Your task to perform on an android device: turn on priority inbox in the gmail app Image 0: 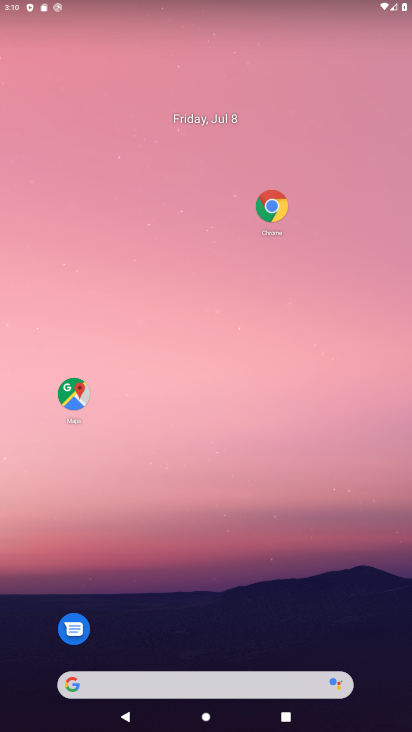
Step 0: drag from (225, 617) to (150, 129)
Your task to perform on an android device: turn on priority inbox in the gmail app Image 1: 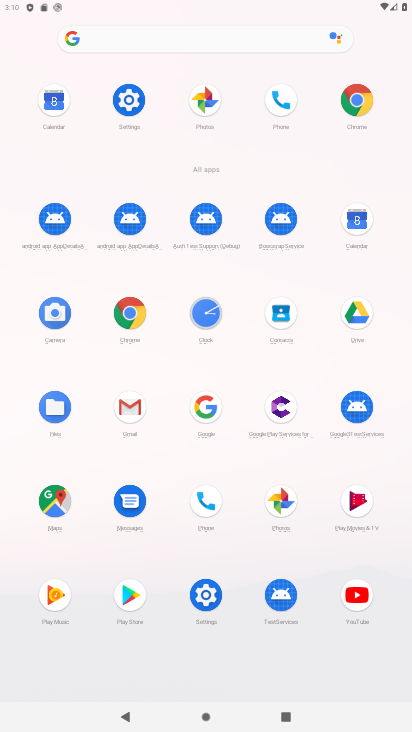
Step 1: click (129, 409)
Your task to perform on an android device: turn on priority inbox in the gmail app Image 2: 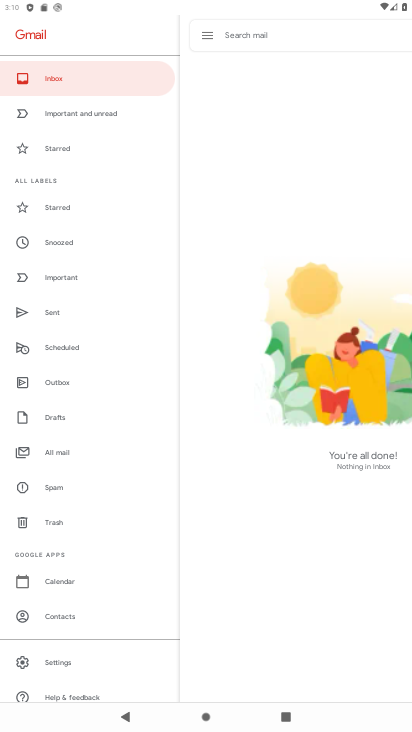
Step 2: drag from (126, 603) to (136, 398)
Your task to perform on an android device: turn on priority inbox in the gmail app Image 3: 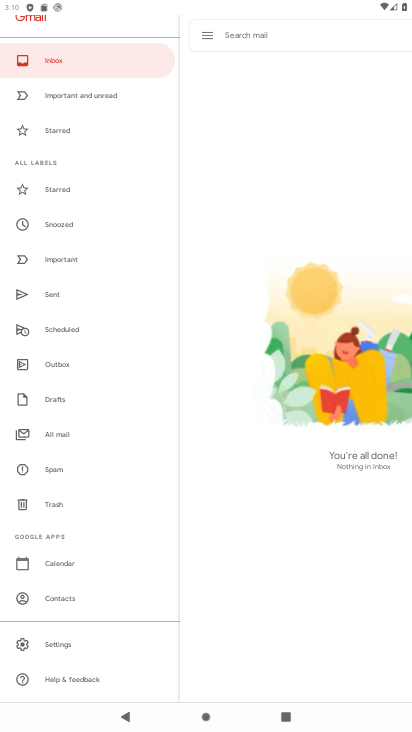
Step 3: click (74, 636)
Your task to perform on an android device: turn on priority inbox in the gmail app Image 4: 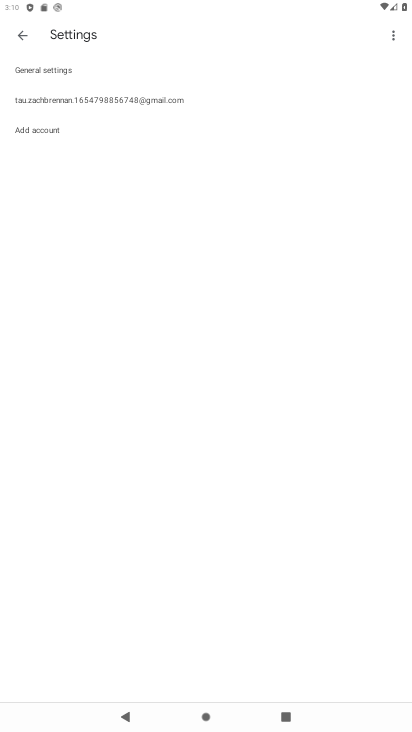
Step 4: click (167, 92)
Your task to perform on an android device: turn on priority inbox in the gmail app Image 5: 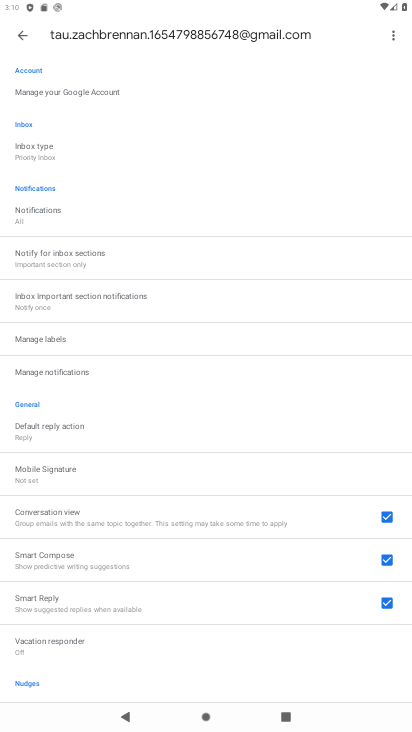
Step 5: drag from (177, 560) to (273, 340)
Your task to perform on an android device: turn on priority inbox in the gmail app Image 6: 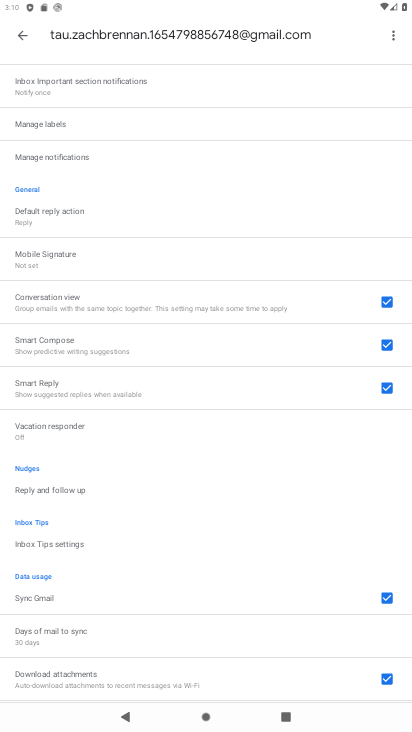
Step 6: drag from (192, 256) to (250, 687)
Your task to perform on an android device: turn on priority inbox in the gmail app Image 7: 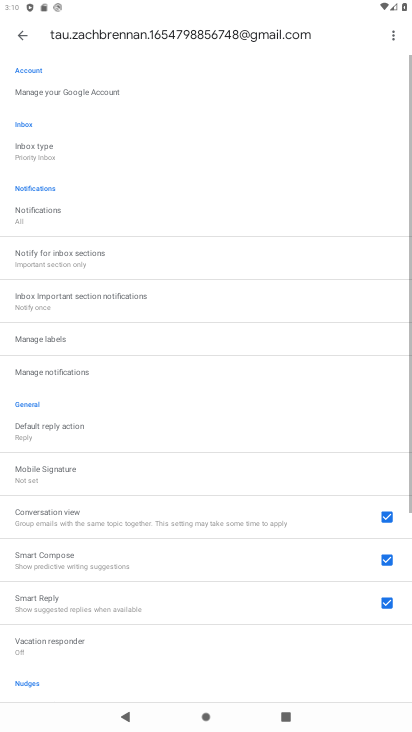
Step 7: click (69, 150)
Your task to perform on an android device: turn on priority inbox in the gmail app Image 8: 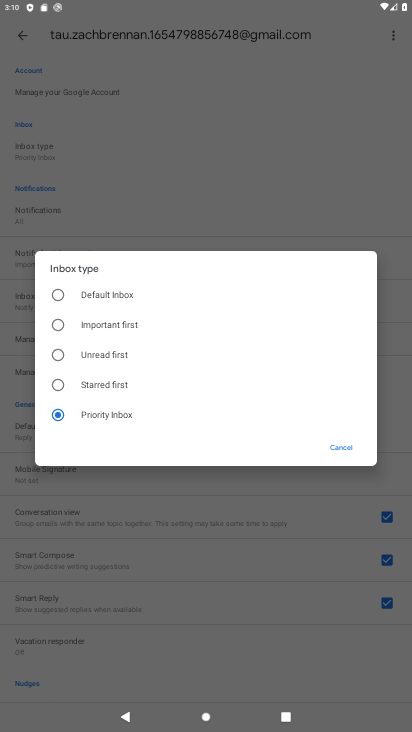
Step 8: task complete